Your task to perform on an android device: change timer sound Image 0: 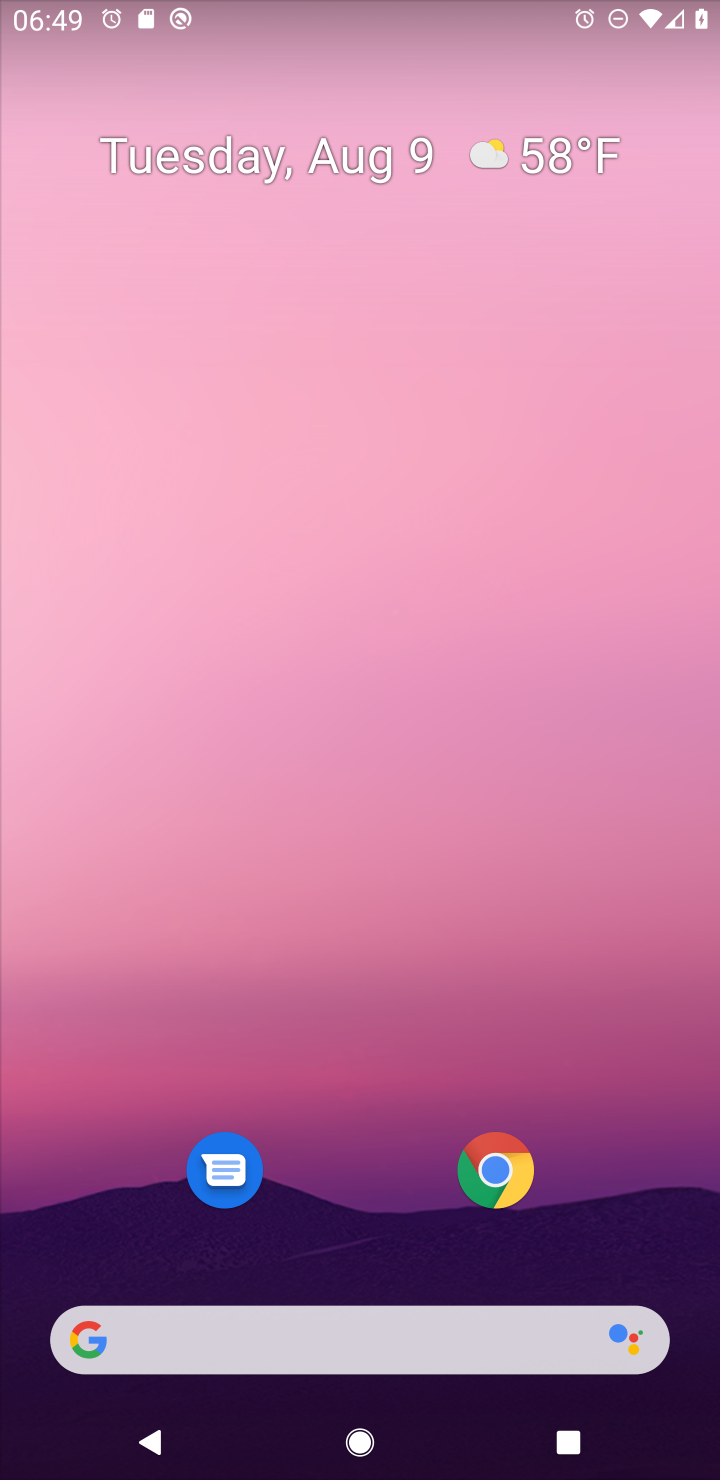
Step 0: press home button
Your task to perform on an android device: change timer sound Image 1: 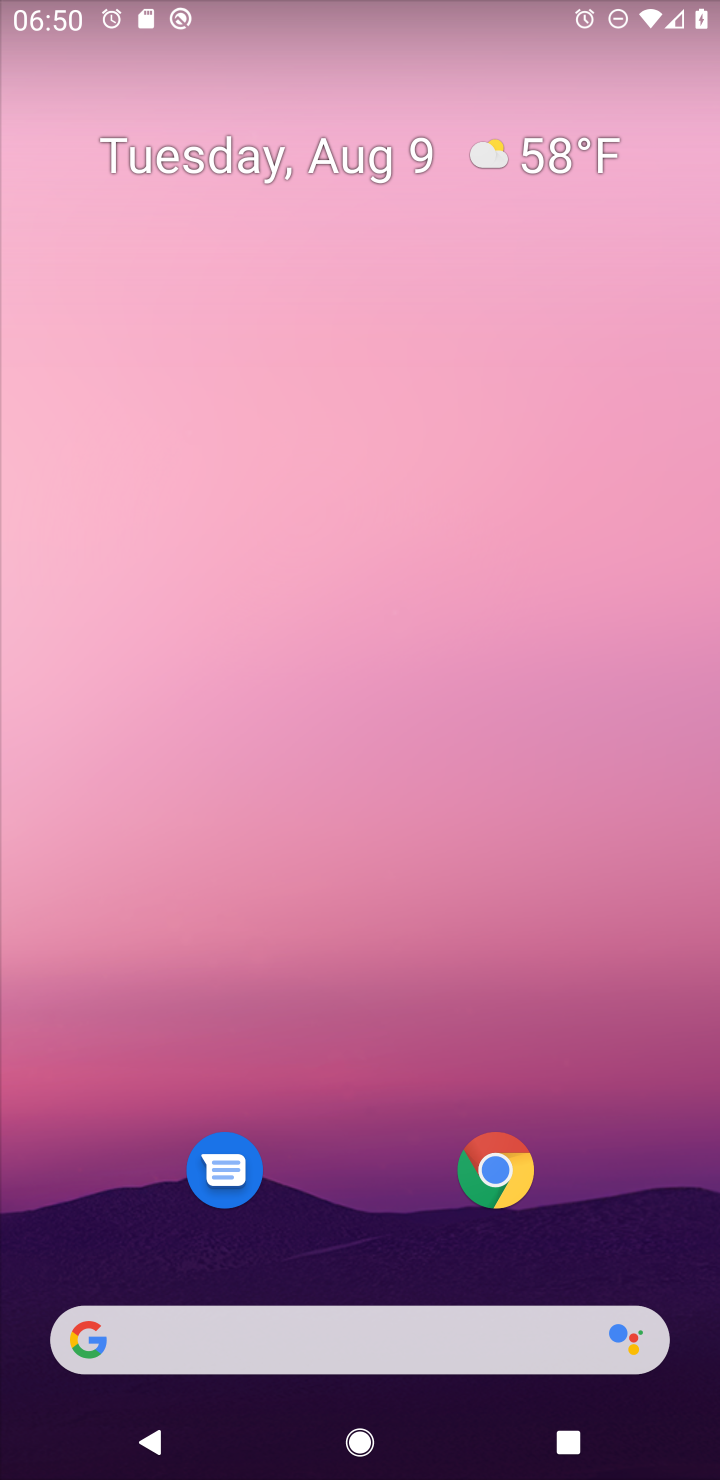
Step 1: drag from (334, 737) to (663, 317)
Your task to perform on an android device: change timer sound Image 2: 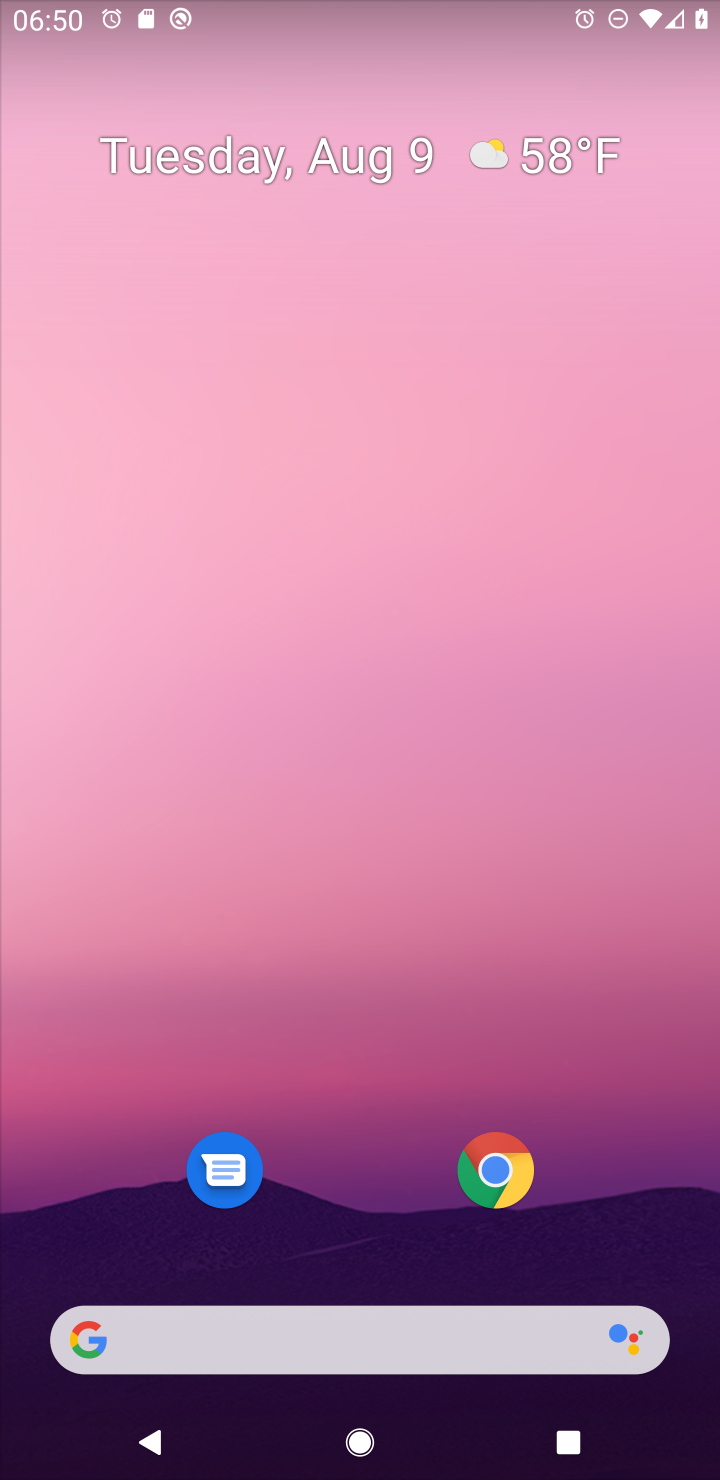
Step 2: drag from (394, 952) to (488, 2)
Your task to perform on an android device: change timer sound Image 3: 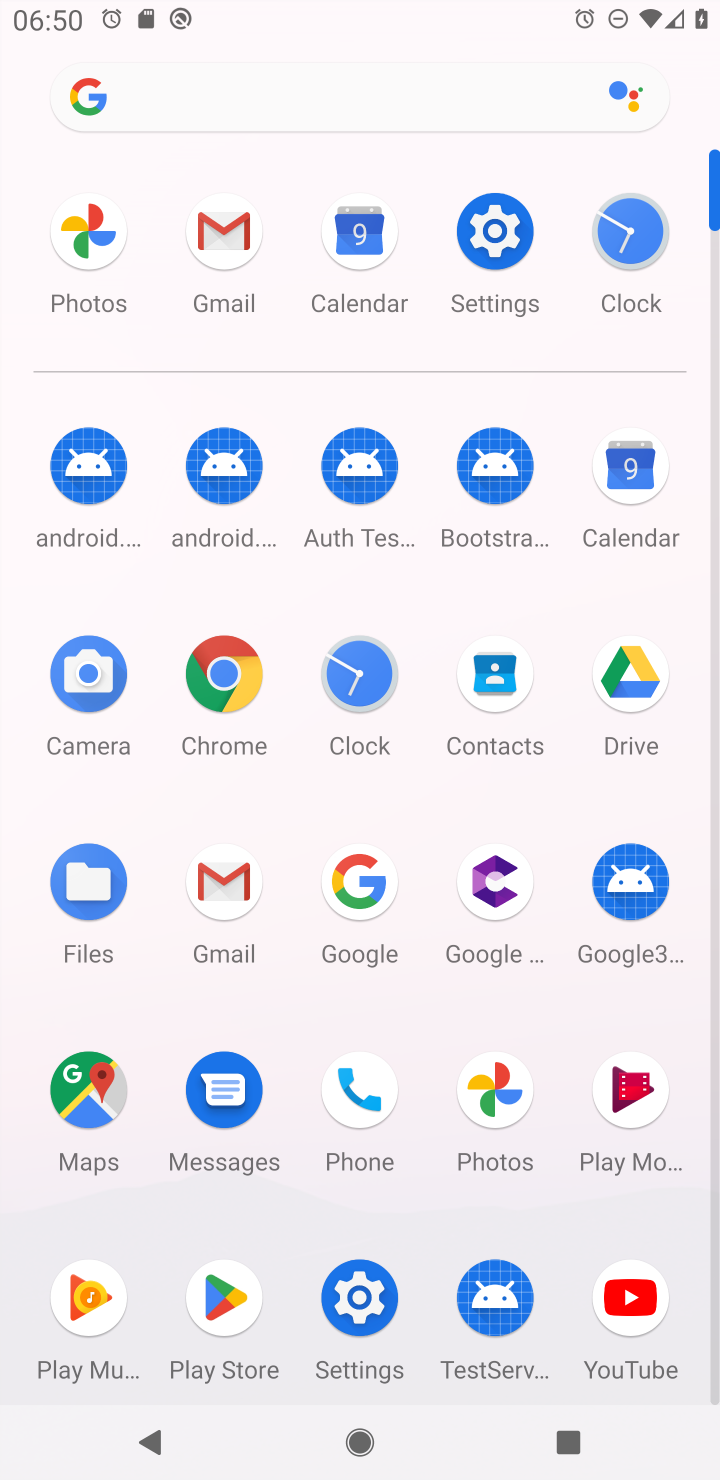
Step 3: click (620, 239)
Your task to perform on an android device: change timer sound Image 4: 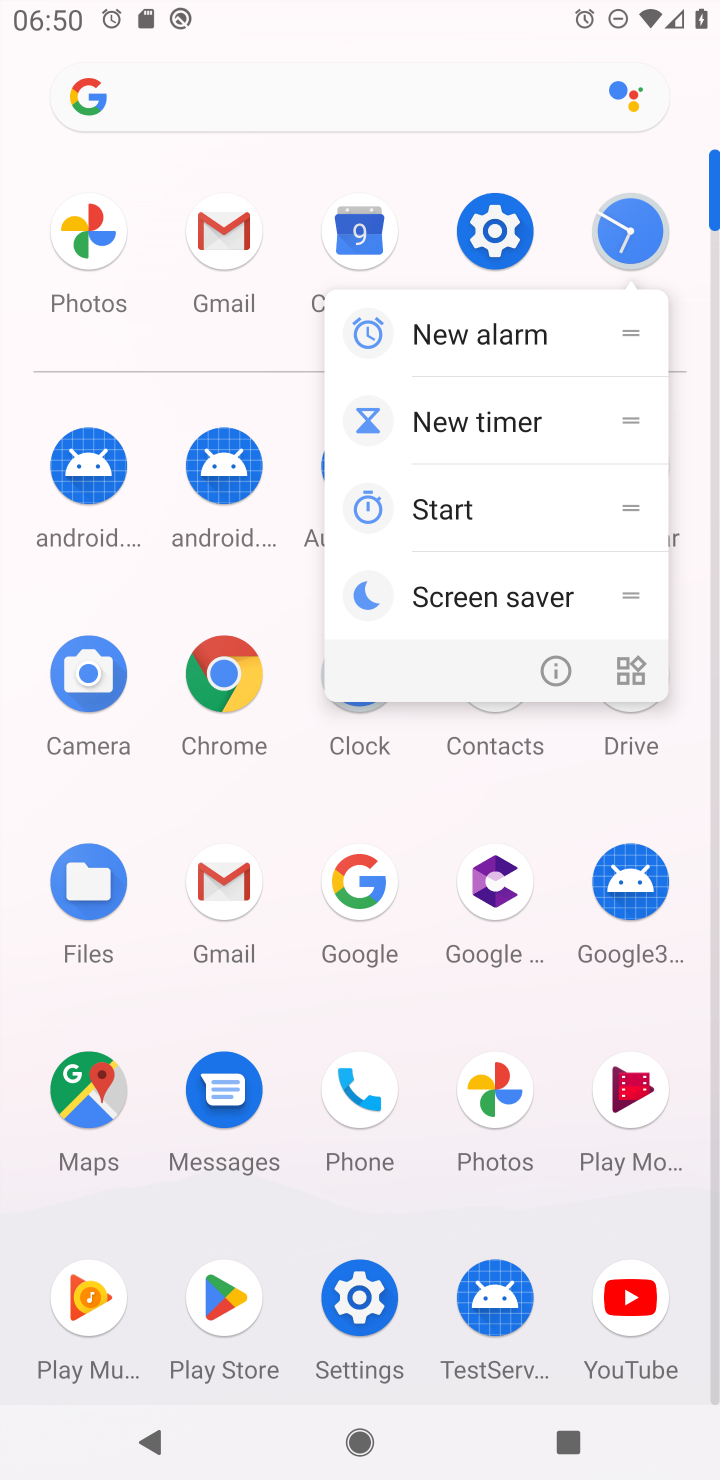
Step 4: click (607, 237)
Your task to perform on an android device: change timer sound Image 5: 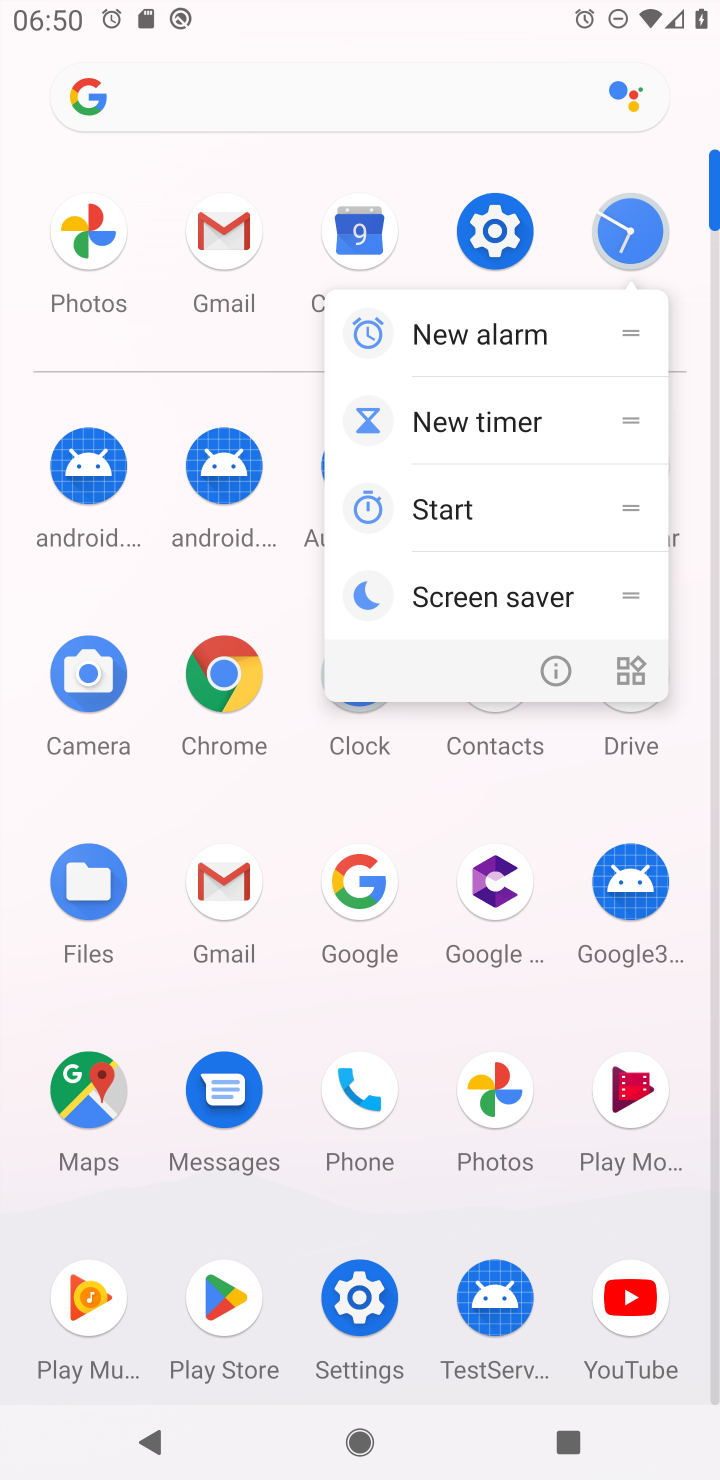
Step 5: click (624, 247)
Your task to perform on an android device: change timer sound Image 6: 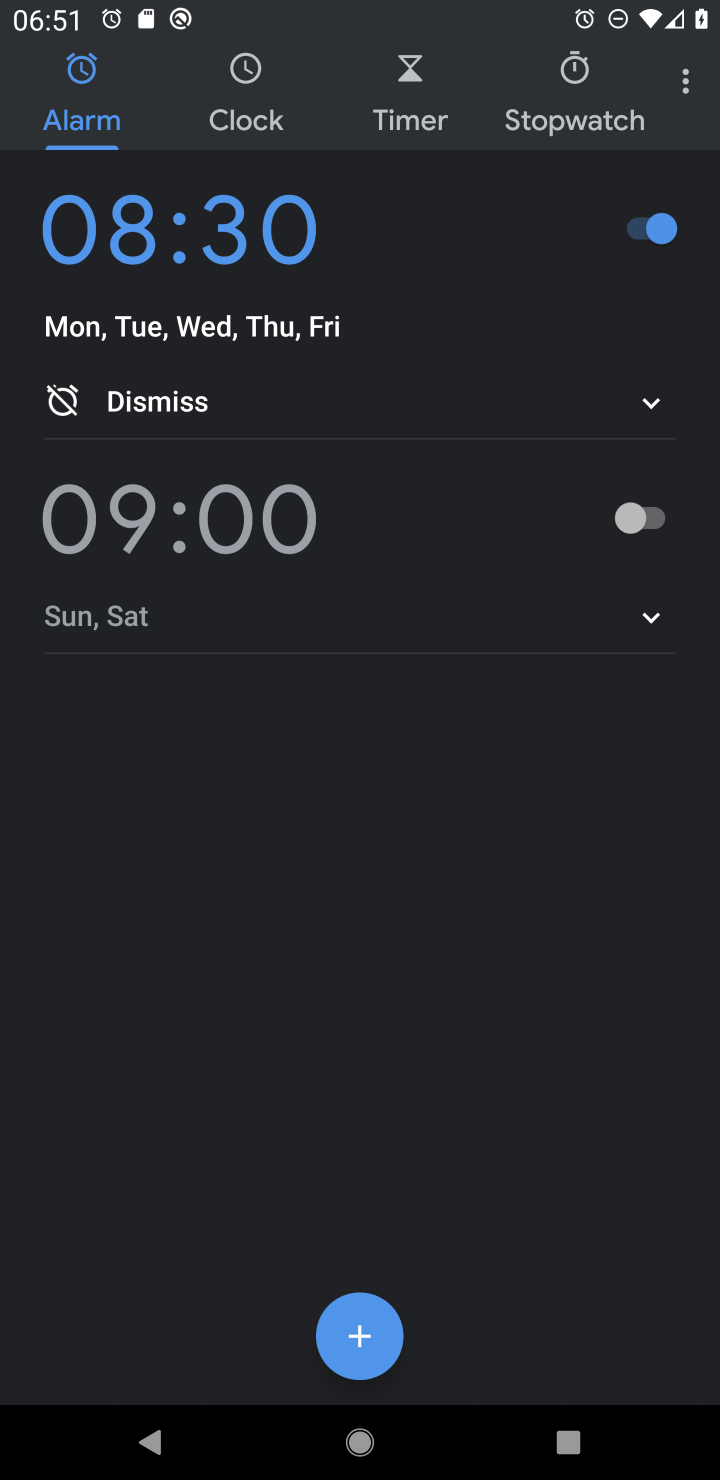
Step 6: click (694, 85)
Your task to perform on an android device: change timer sound Image 7: 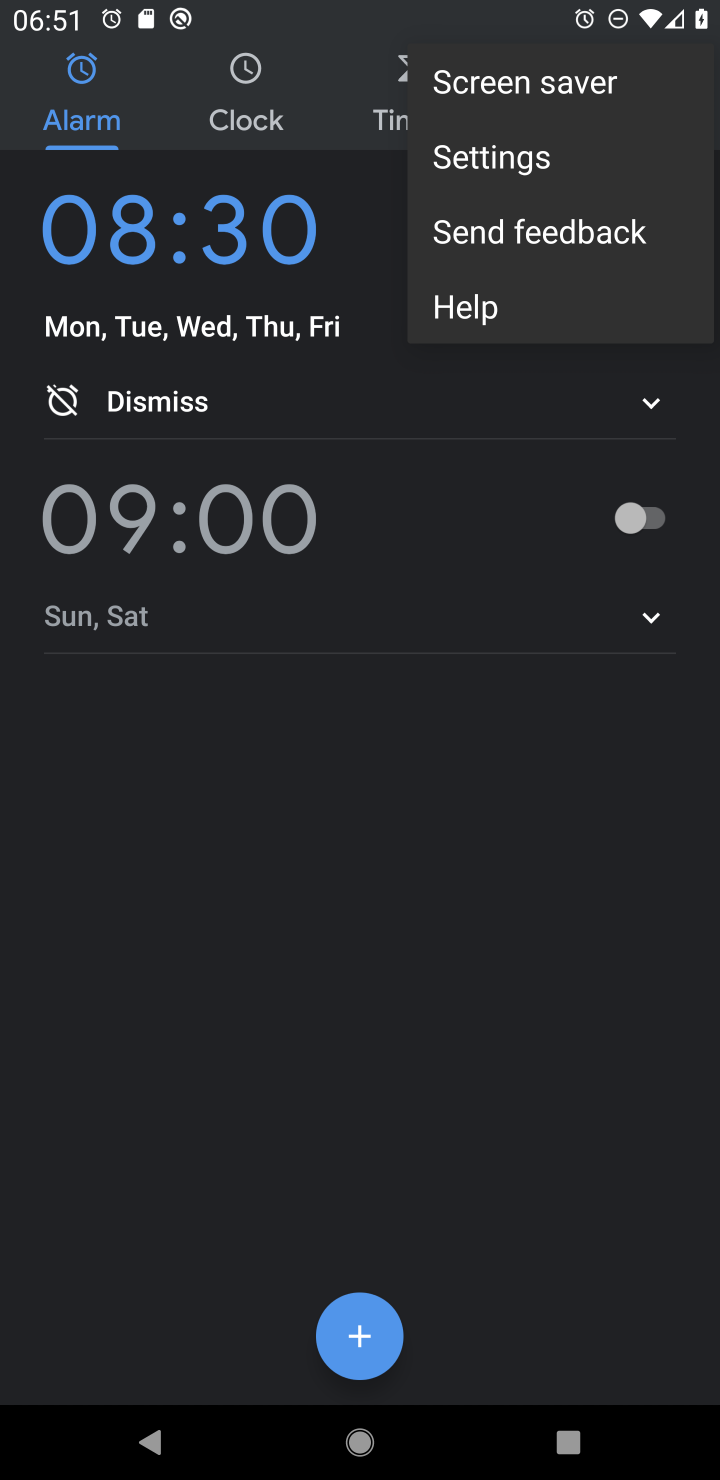
Step 7: click (521, 163)
Your task to perform on an android device: change timer sound Image 8: 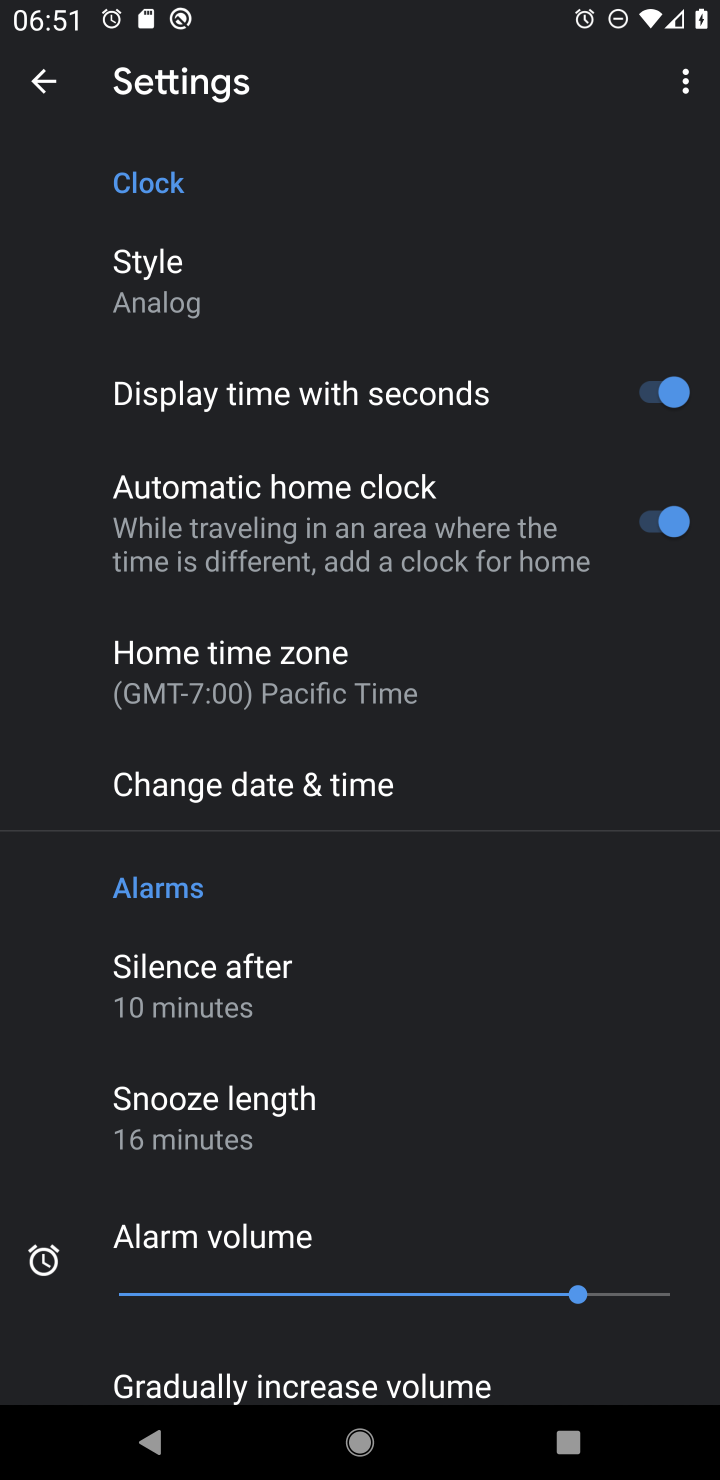
Step 8: drag from (486, 1147) to (454, 292)
Your task to perform on an android device: change timer sound Image 9: 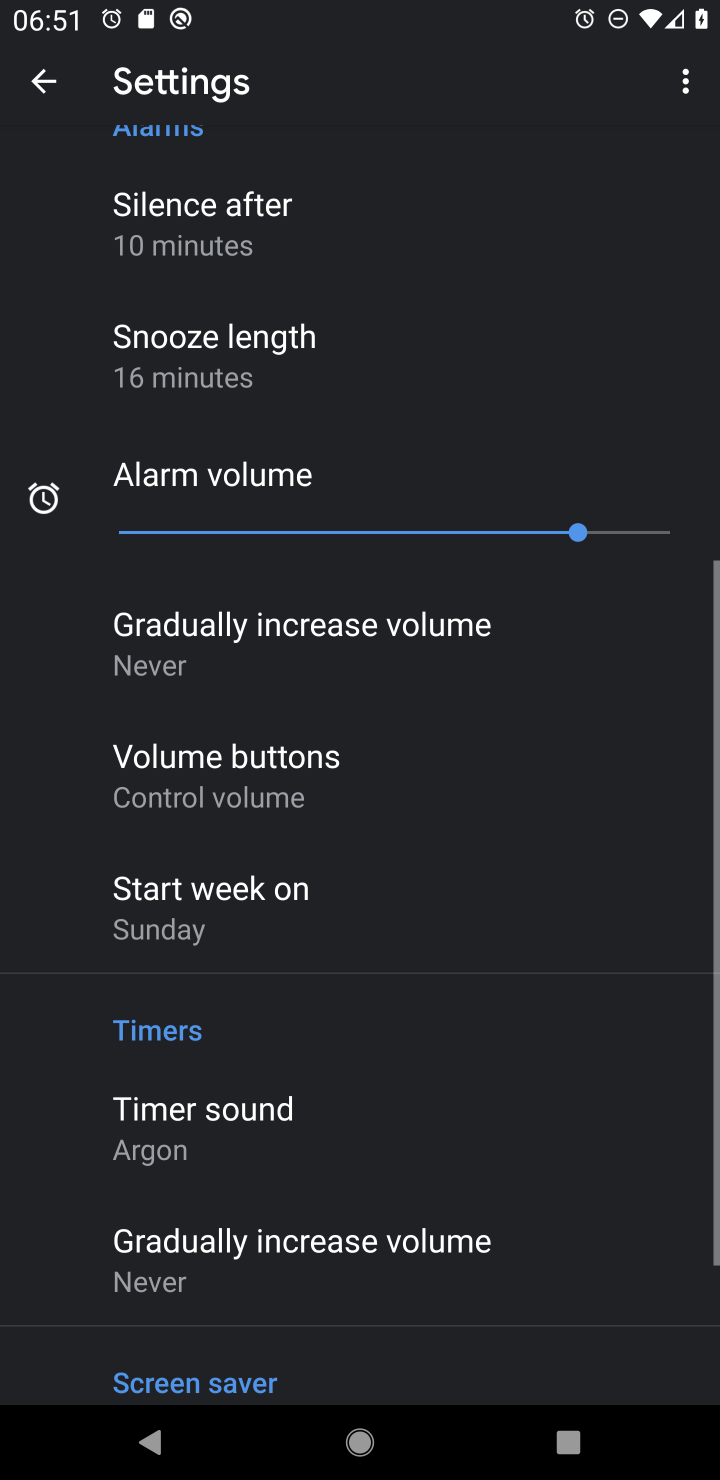
Step 9: click (217, 1125)
Your task to perform on an android device: change timer sound Image 10: 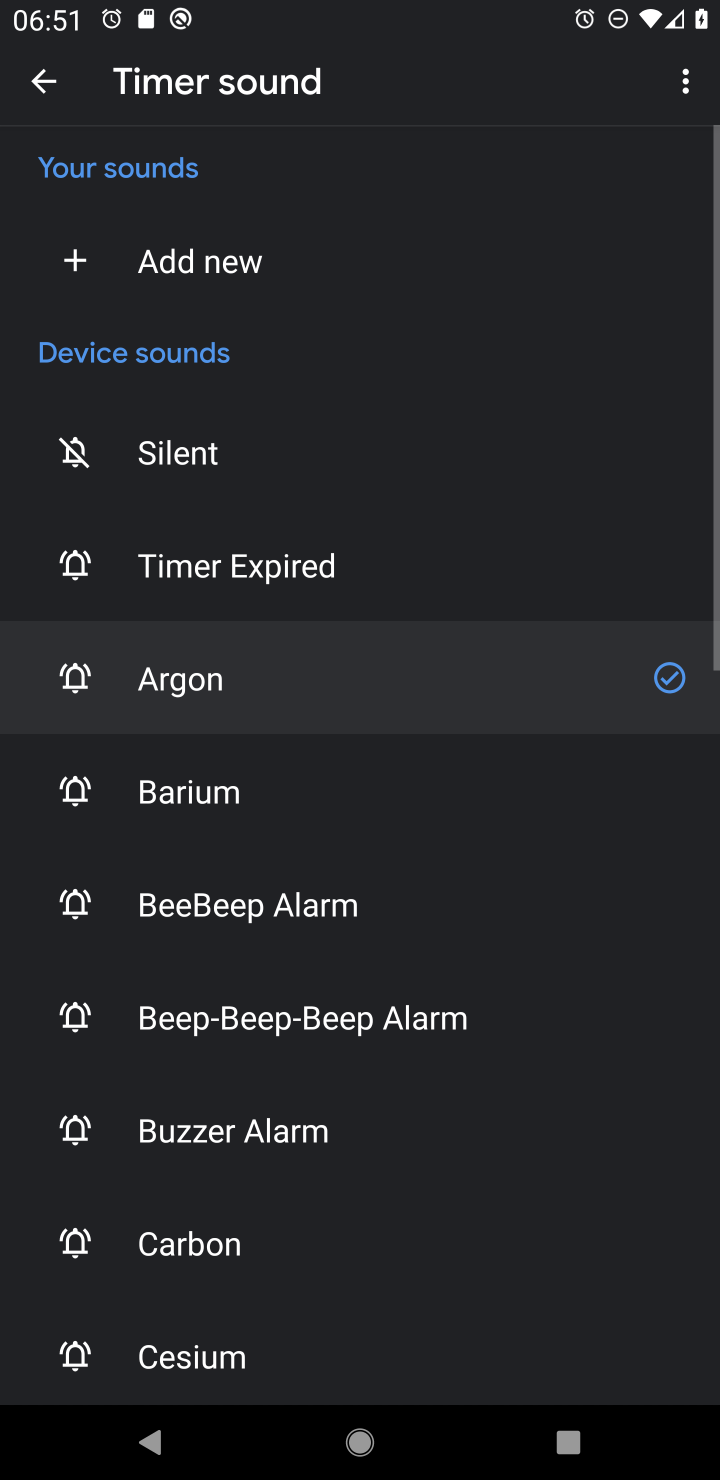
Step 10: click (173, 781)
Your task to perform on an android device: change timer sound Image 11: 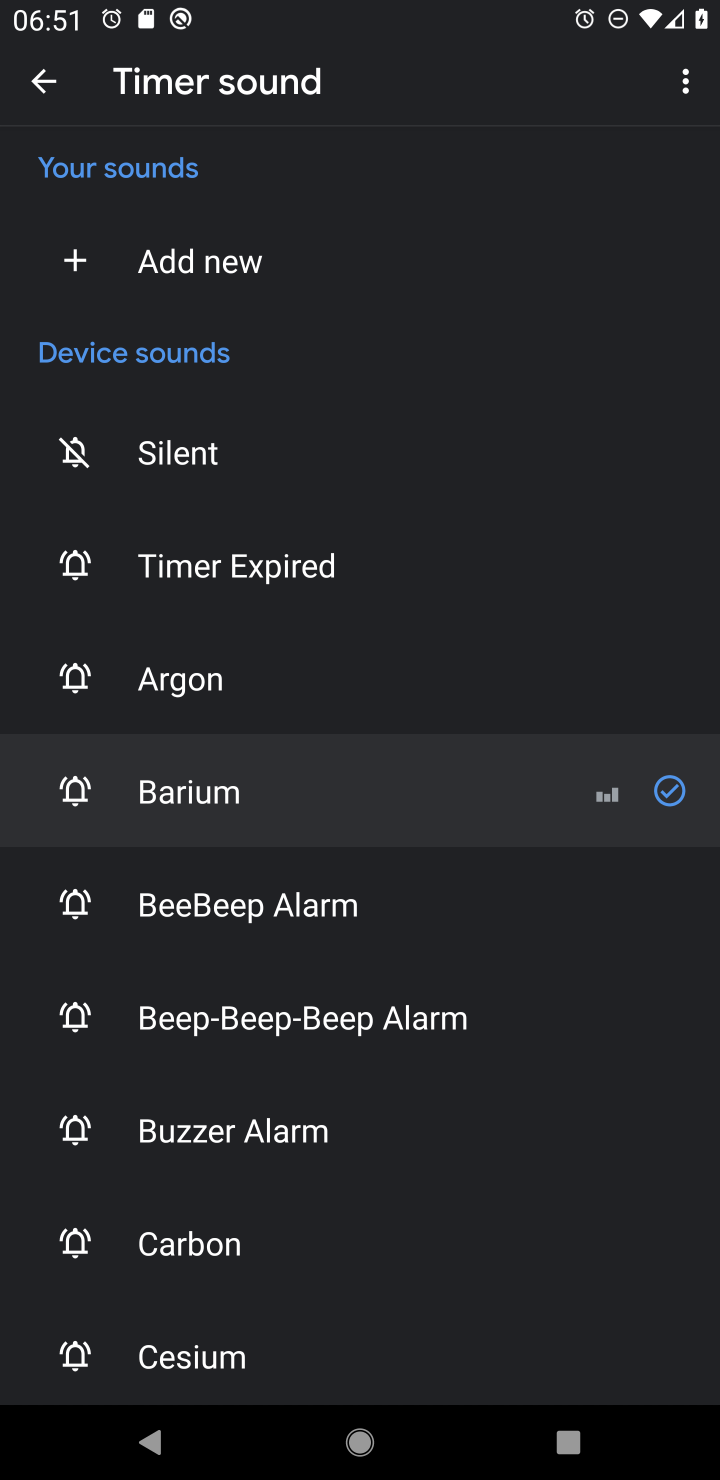
Step 11: task complete